Your task to perform on an android device: set the stopwatch Image 0: 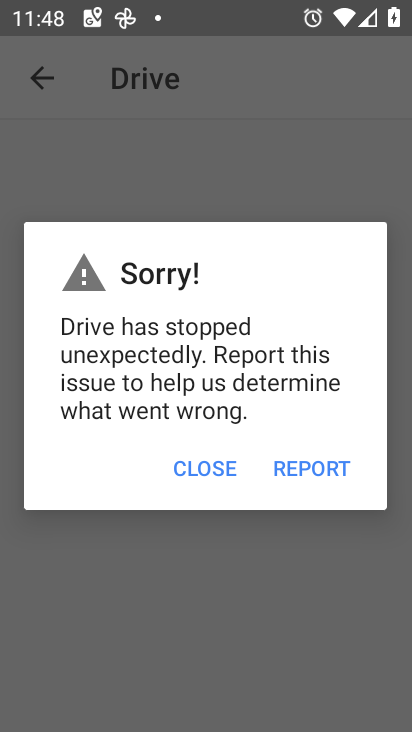
Step 0: press home button
Your task to perform on an android device: set the stopwatch Image 1: 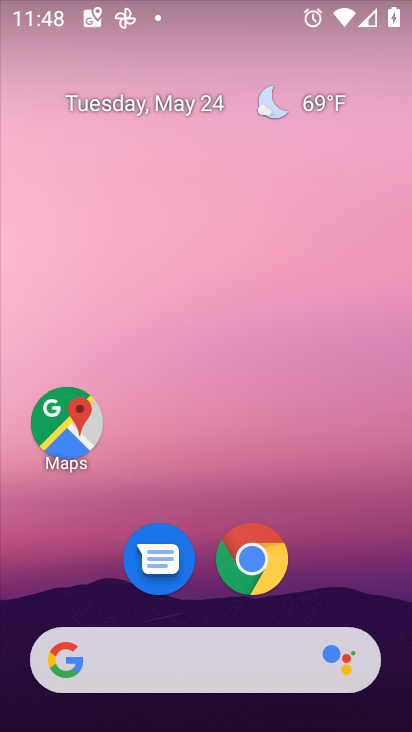
Step 1: drag from (381, 641) to (311, 132)
Your task to perform on an android device: set the stopwatch Image 2: 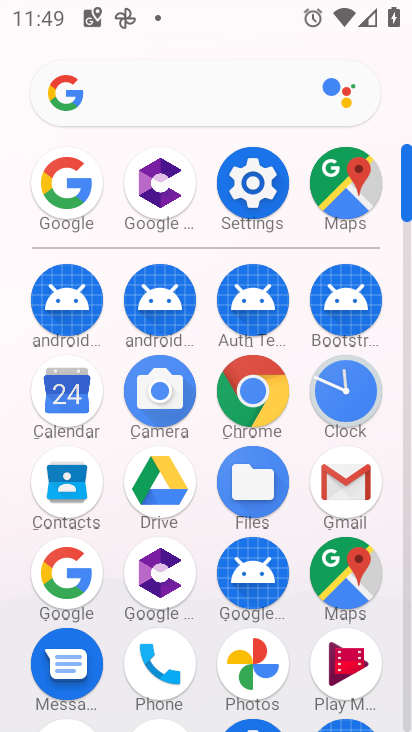
Step 2: click (368, 401)
Your task to perform on an android device: set the stopwatch Image 3: 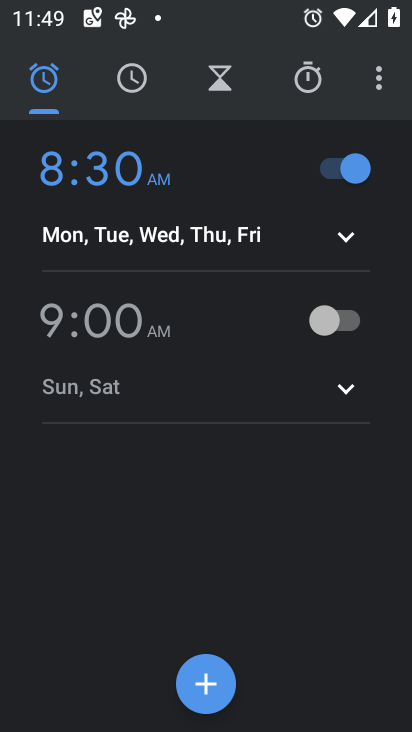
Step 3: click (311, 86)
Your task to perform on an android device: set the stopwatch Image 4: 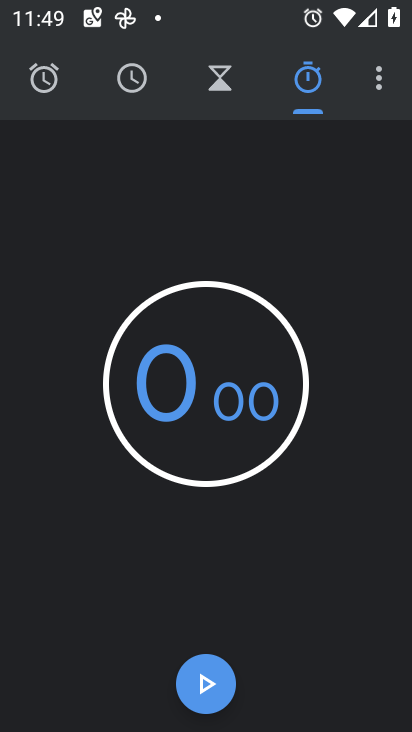
Step 4: task complete